Your task to perform on an android device: What's the weather going to be this weekend? Image 0: 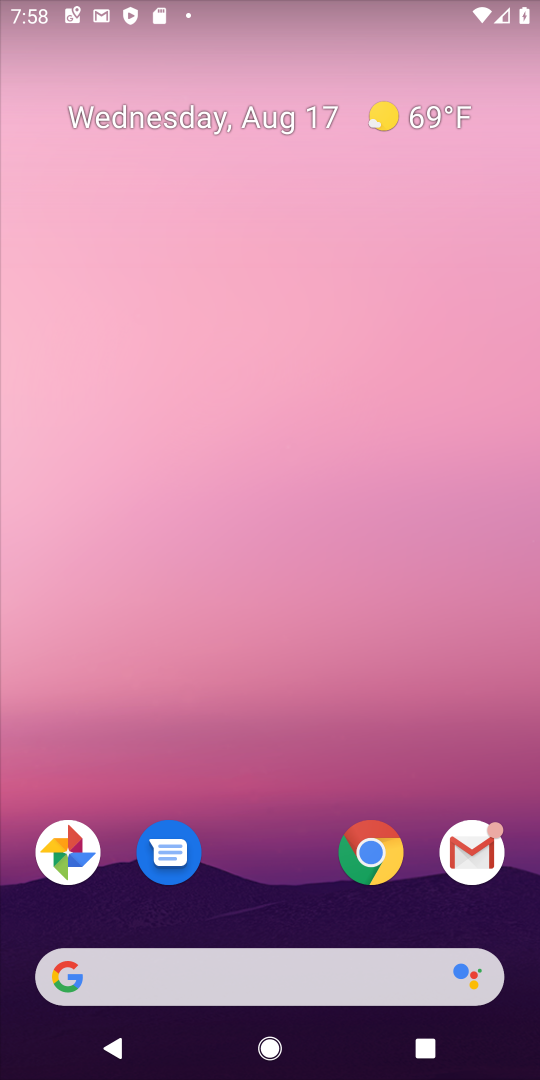
Step 0: click (71, 984)
Your task to perform on an android device: What's the weather going to be this weekend? Image 1: 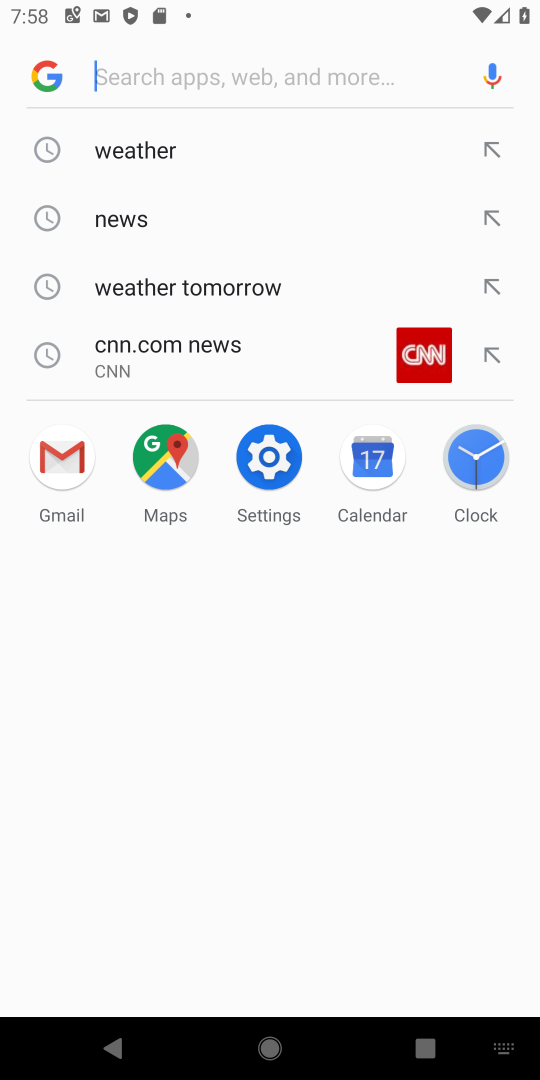
Step 1: click (133, 135)
Your task to perform on an android device: What's the weather going to be this weekend? Image 2: 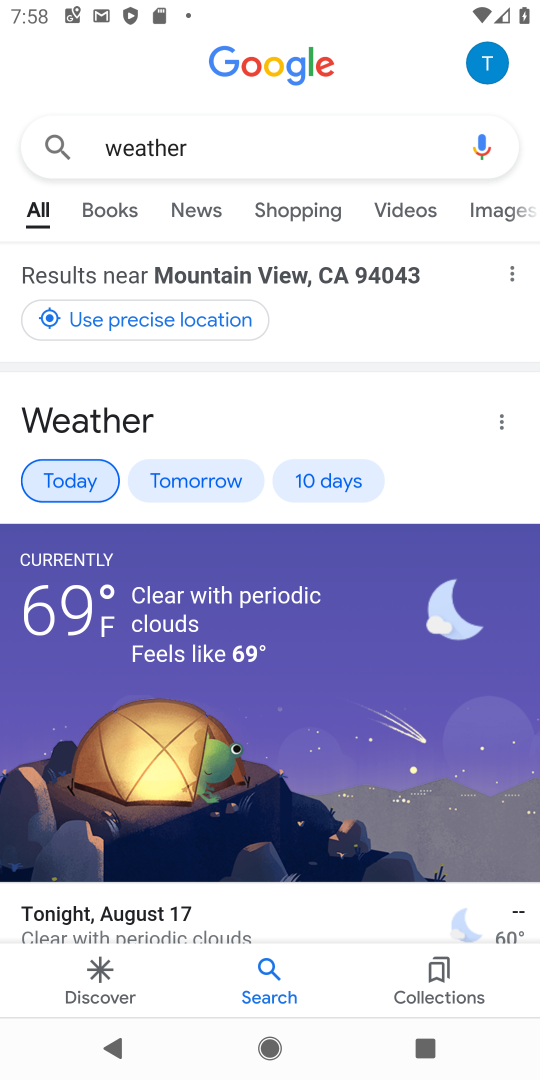
Step 2: click (316, 491)
Your task to perform on an android device: What's the weather going to be this weekend? Image 3: 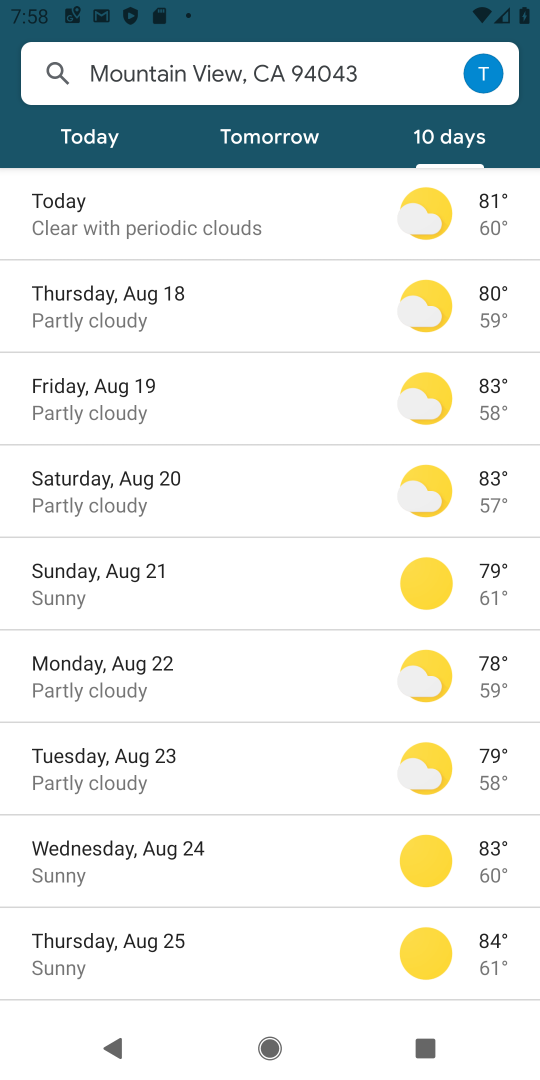
Step 3: task complete